Your task to perform on an android device: Add logitech g933 to the cart on ebay Image 0: 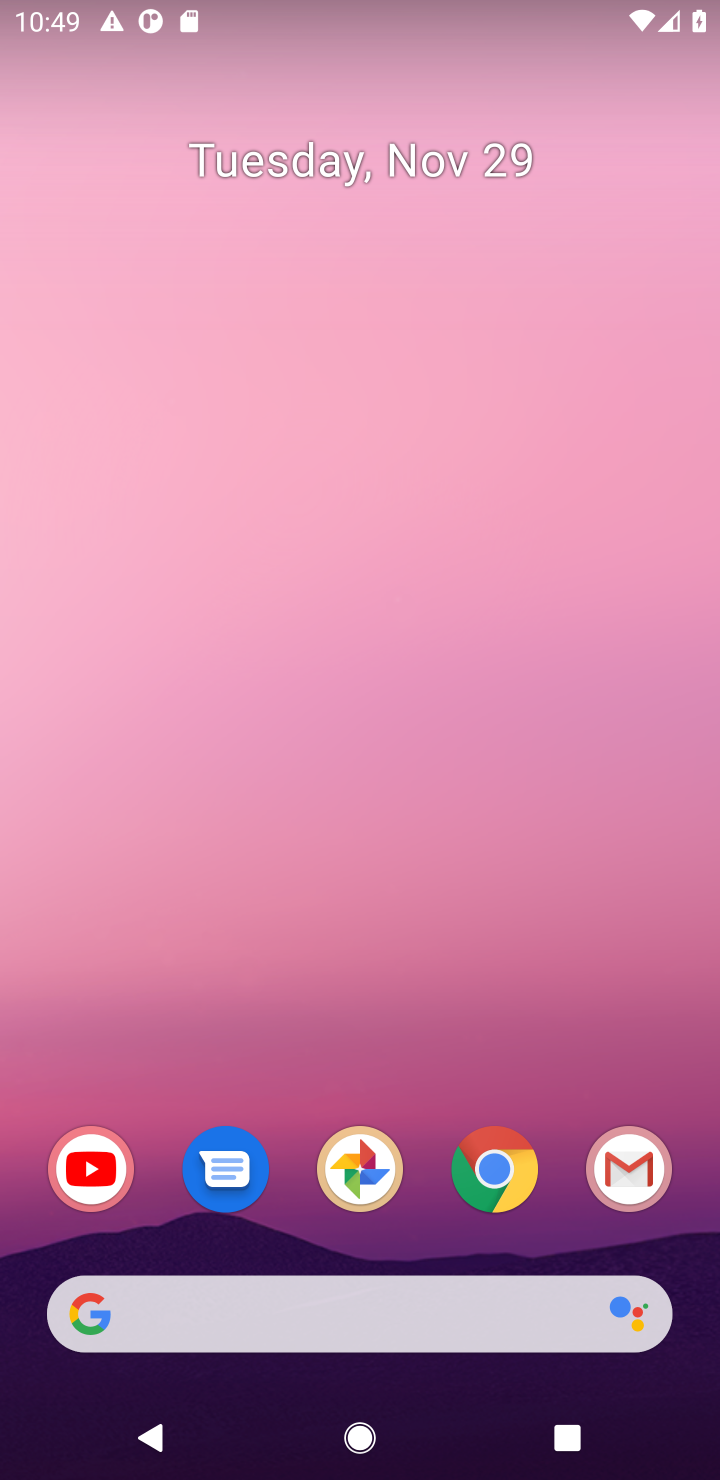
Step 0: press home button
Your task to perform on an android device: Add logitech g933 to the cart on ebay Image 1: 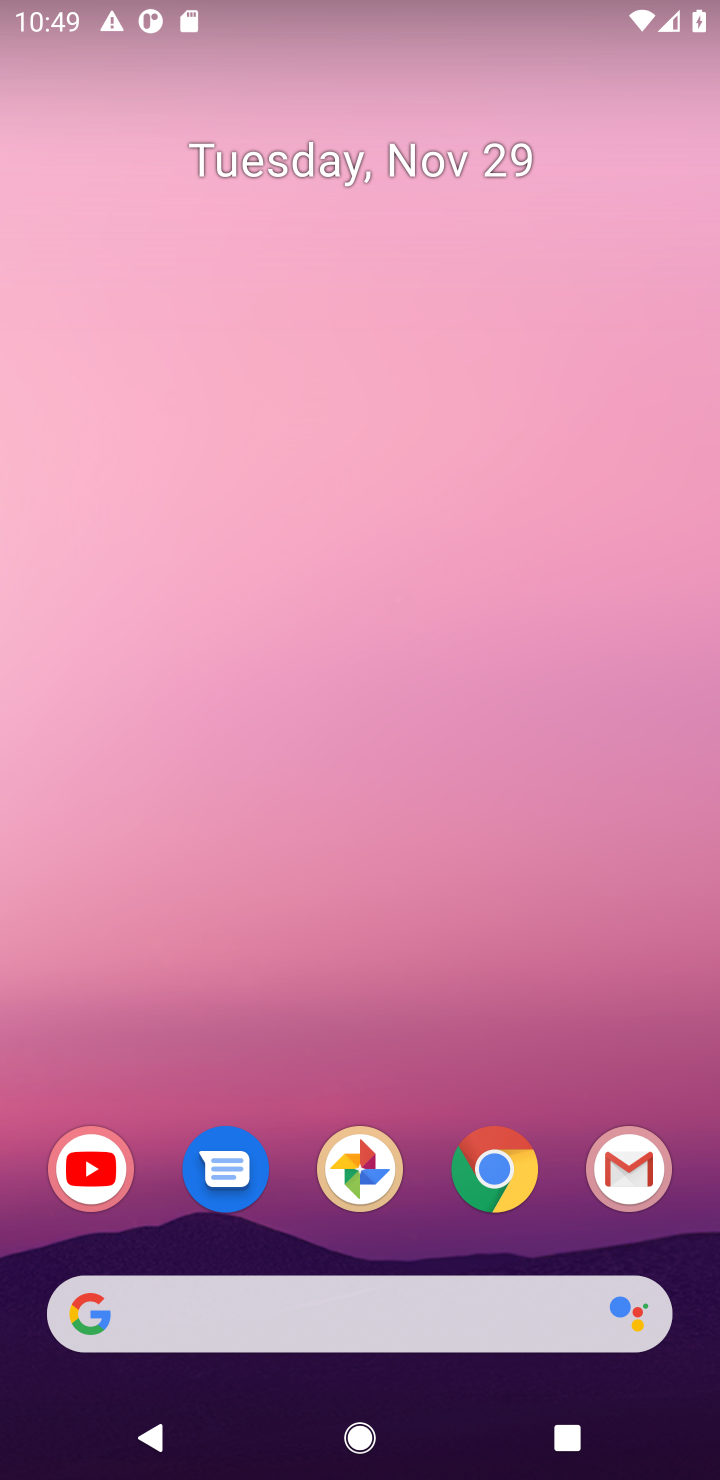
Step 1: click (353, 1303)
Your task to perform on an android device: Add logitech g933 to the cart on ebay Image 2: 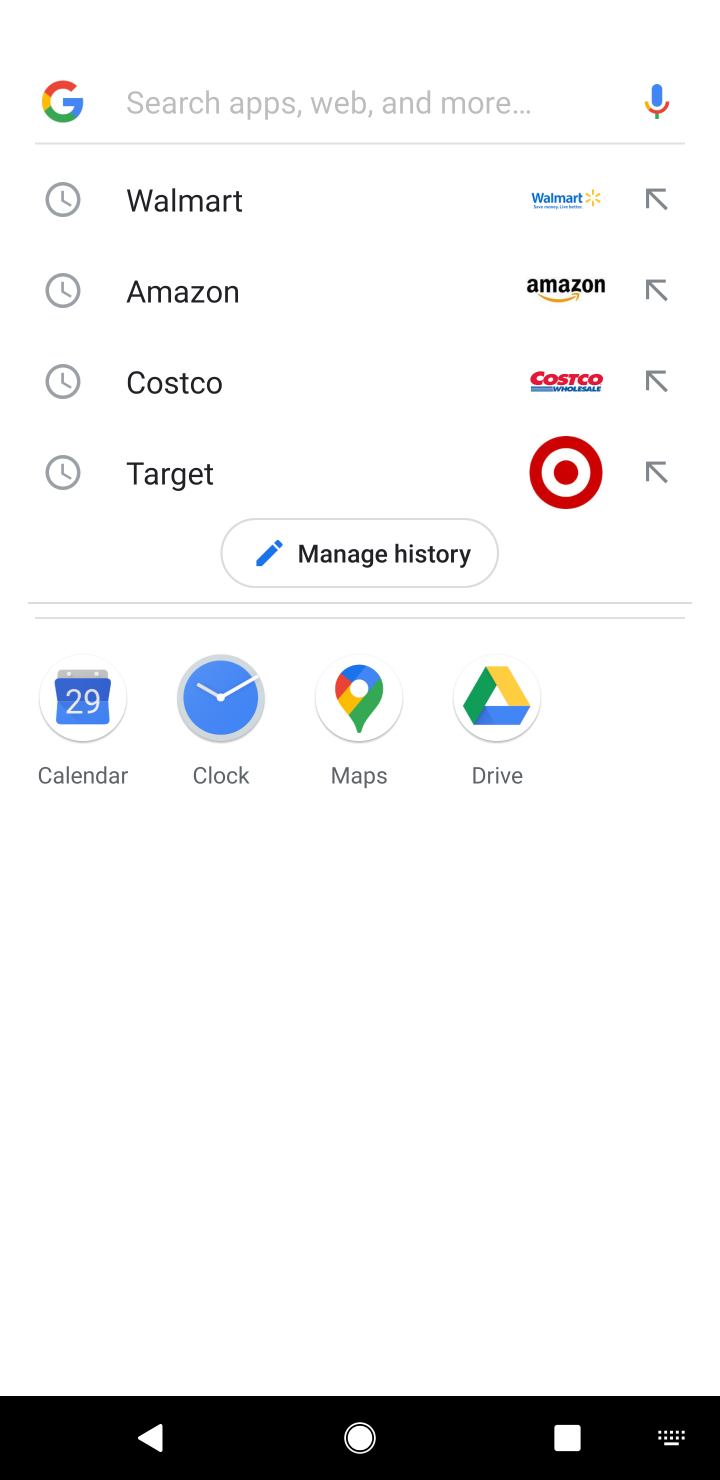
Step 2: type "ebay"
Your task to perform on an android device: Add logitech g933 to the cart on ebay Image 3: 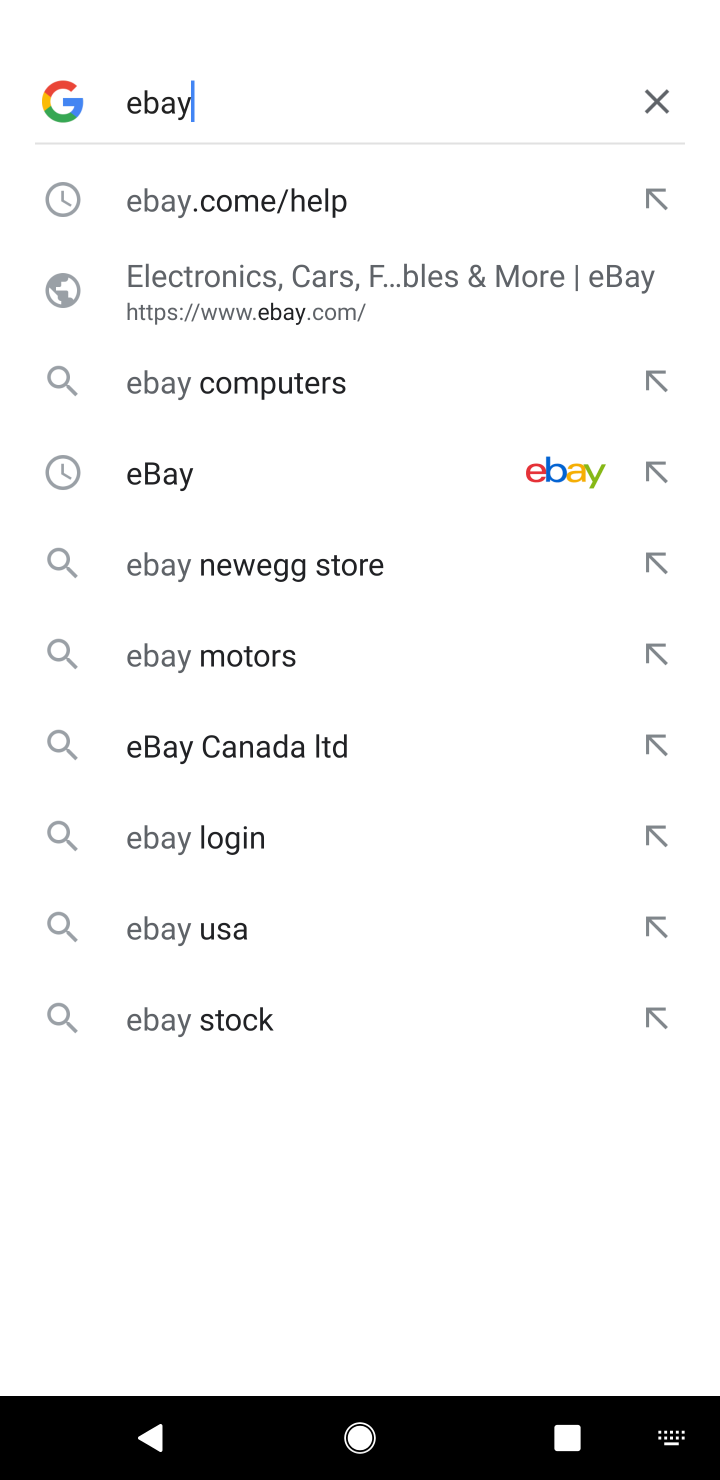
Step 3: click (301, 235)
Your task to perform on an android device: Add logitech g933 to the cart on ebay Image 4: 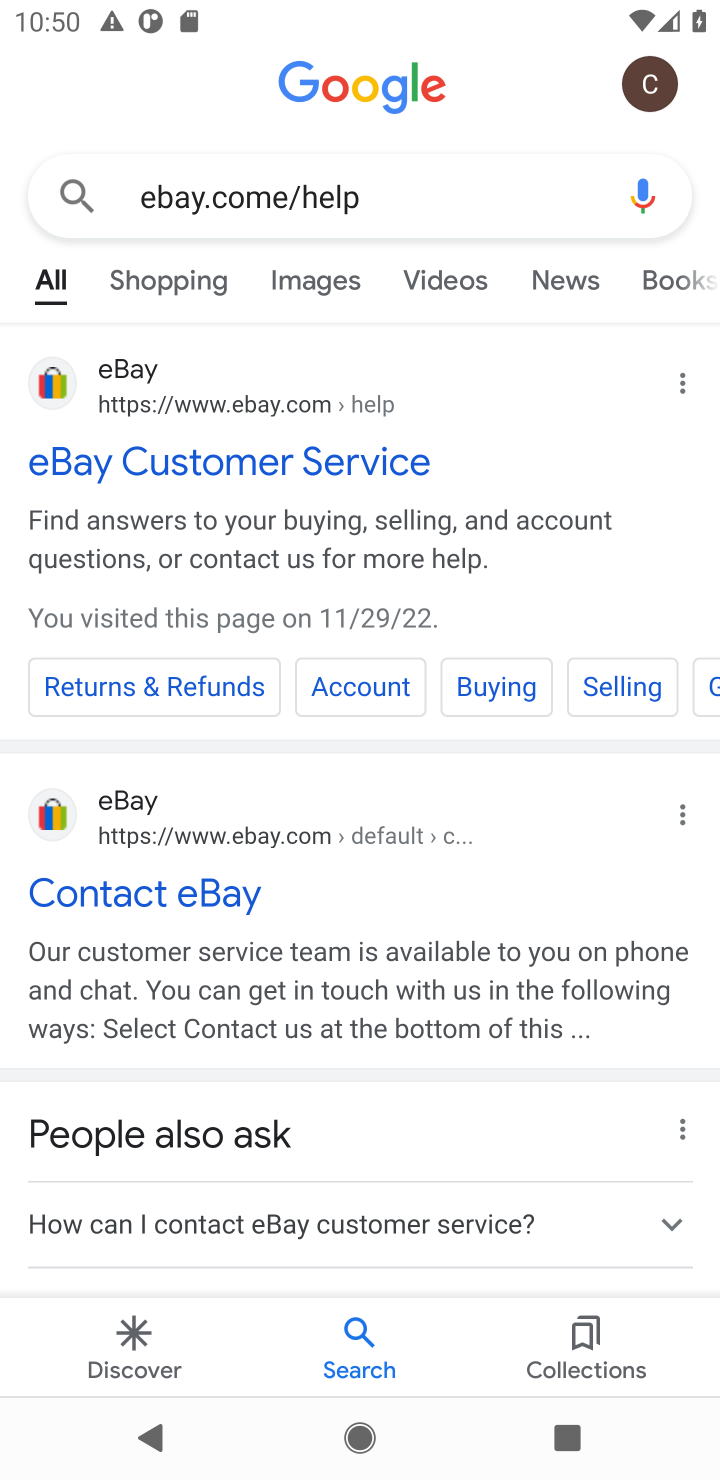
Step 4: click (114, 448)
Your task to perform on an android device: Add logitech g933 to the cart on ebay Image 5: 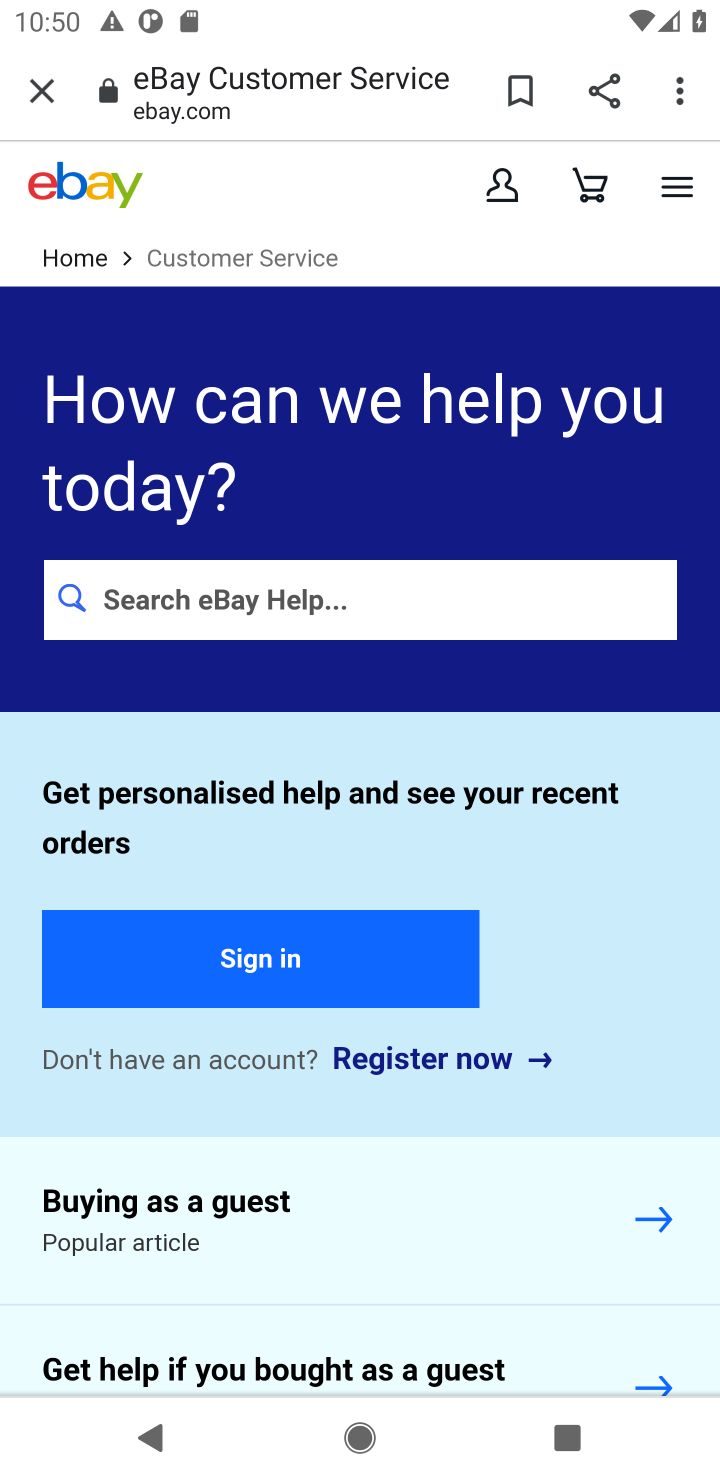
Step 5: click (167, 595)
Your task to perform on an android device: Add logitech g933 to the cart on ebay Image 6: 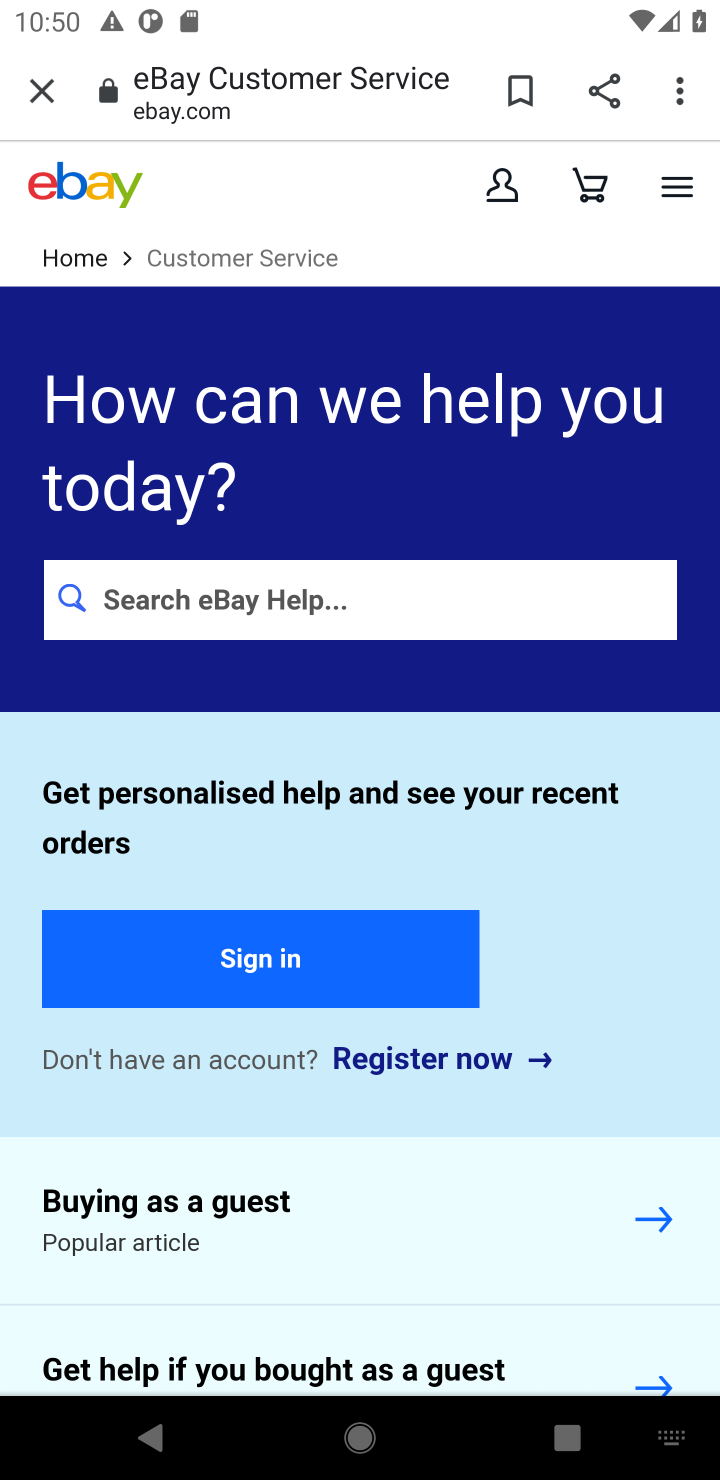
Step 6: click (469, 624)
Your task to perform on an android device: Add logitech g933 to the cart on ebay Image 7: 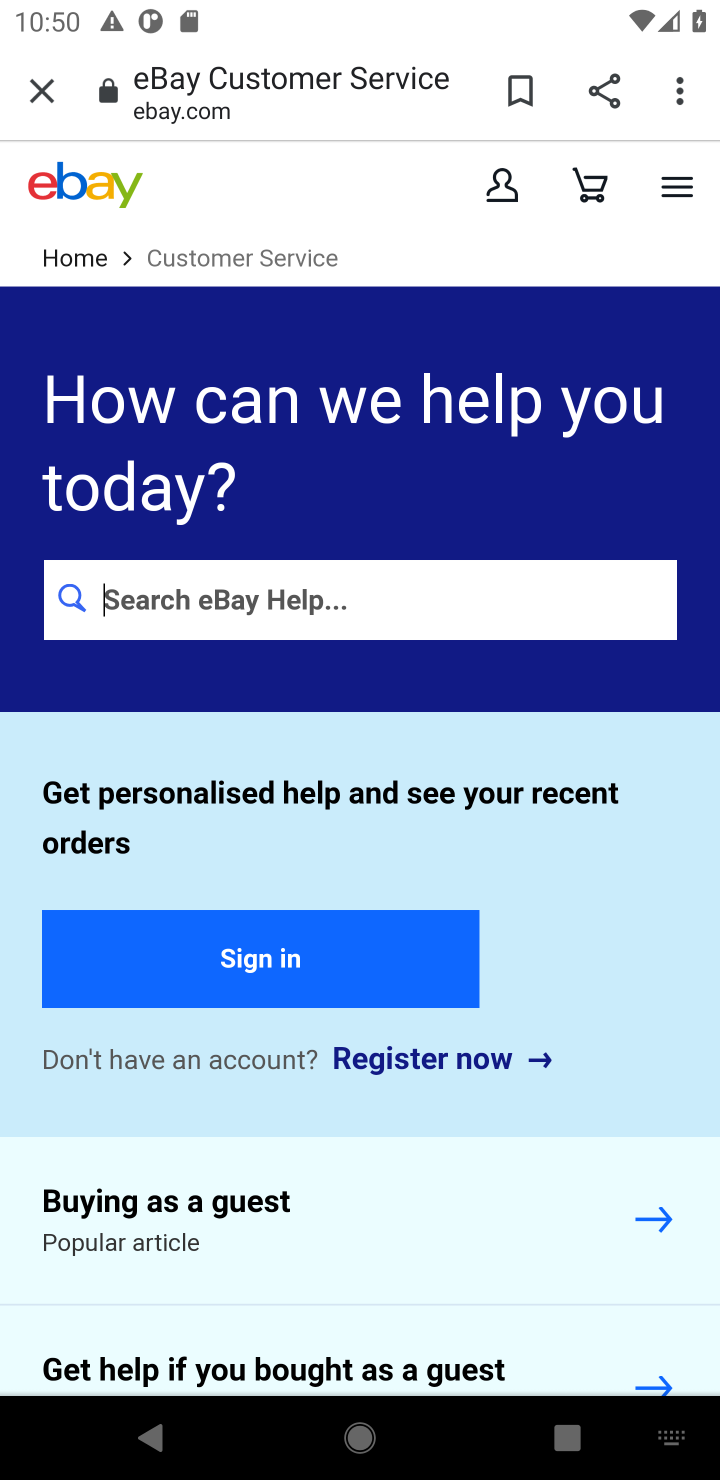
Step 7: type "logitech g933"
Your task to perform on an android device: Add logitech g933 to the cart on ebay Image 8: 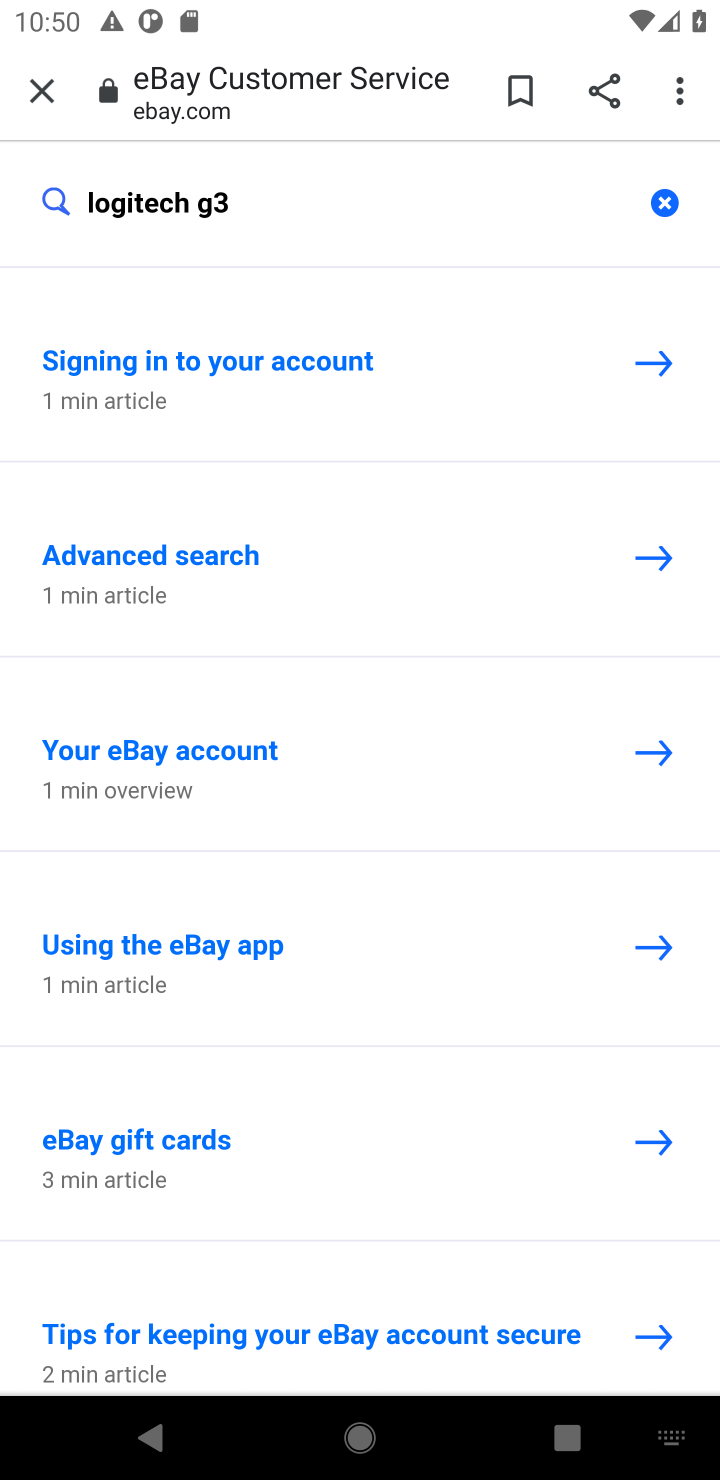
Step 8: task complete